Your task to perform on an android device: Open Reddit.com Image 0: 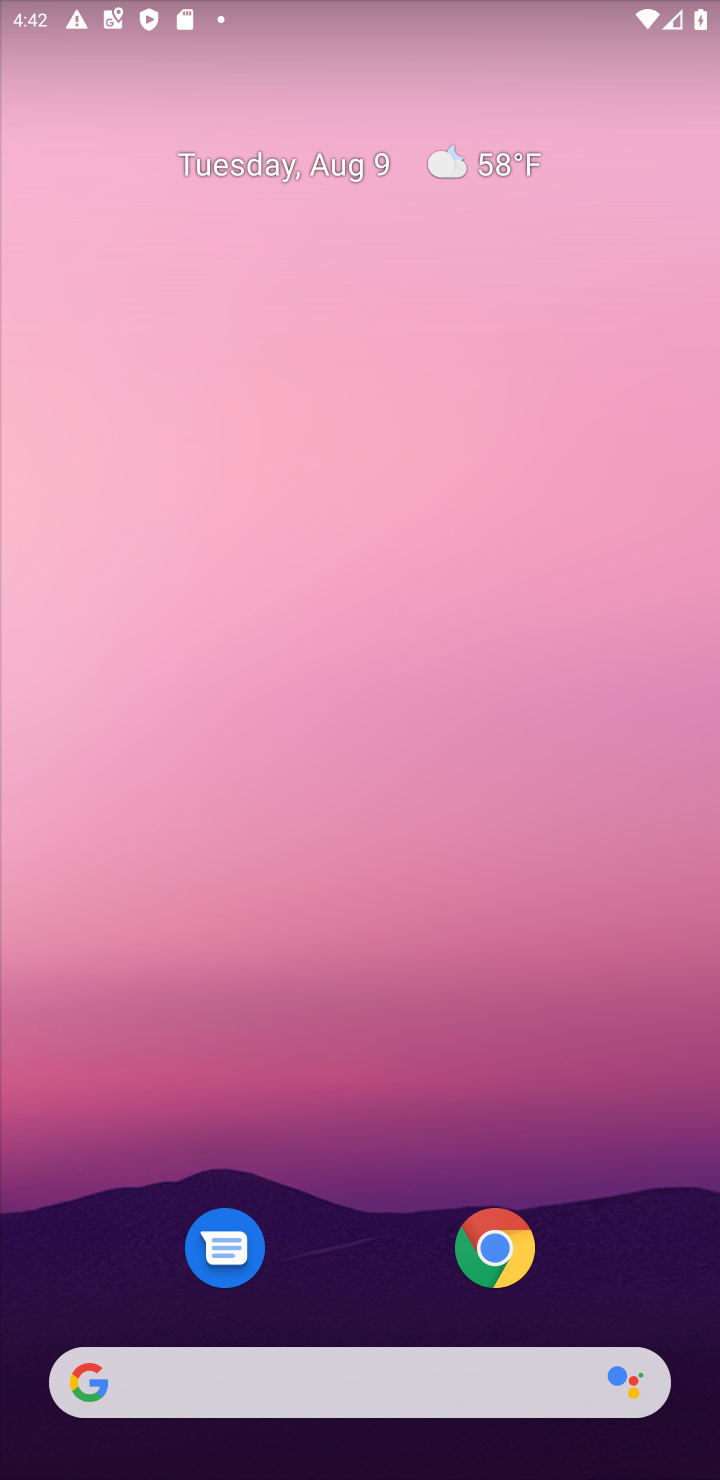
Step 0: drag from (368, 693) to (406, 14)
Your task to perform on an android device: Open Reddit.com Image 1: 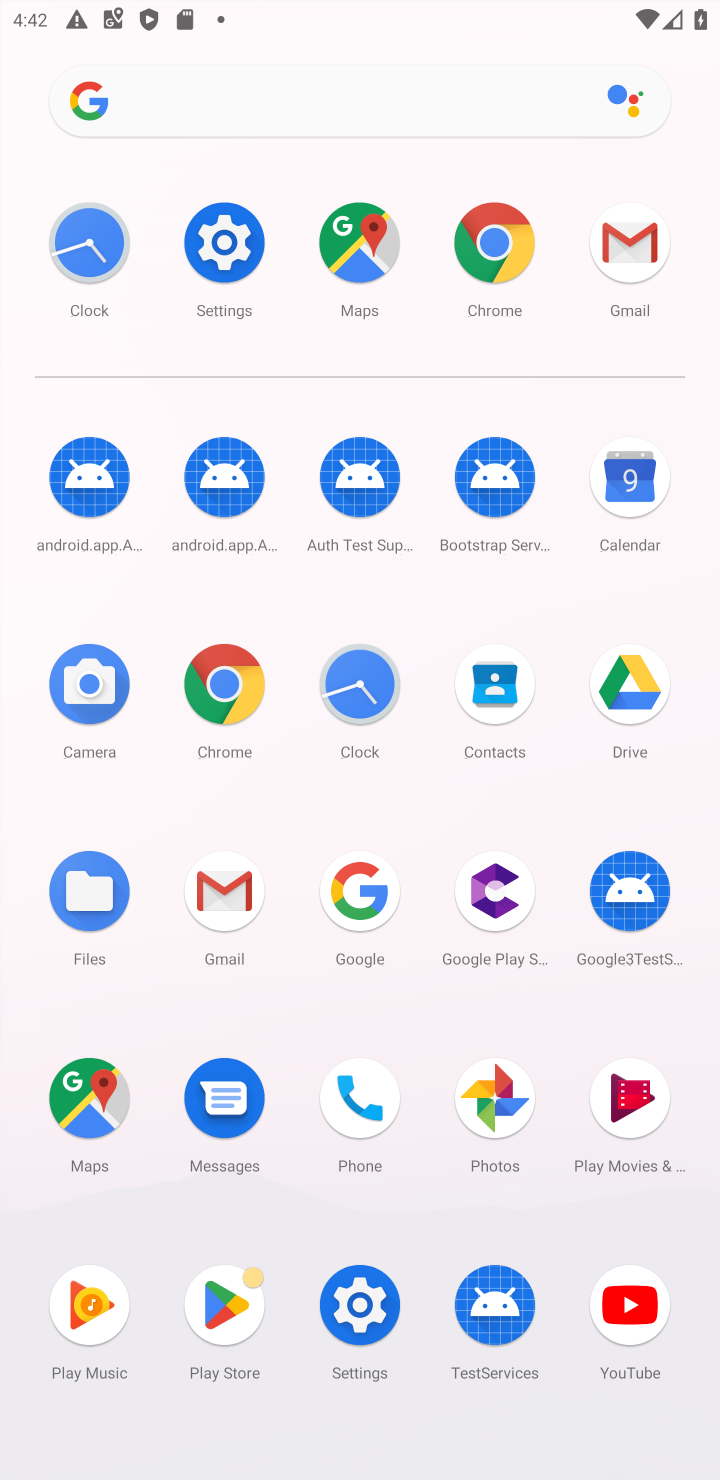
Step 1: click (221, 683)
Your task to perform on an android device: Open Reddit.com Image 2: 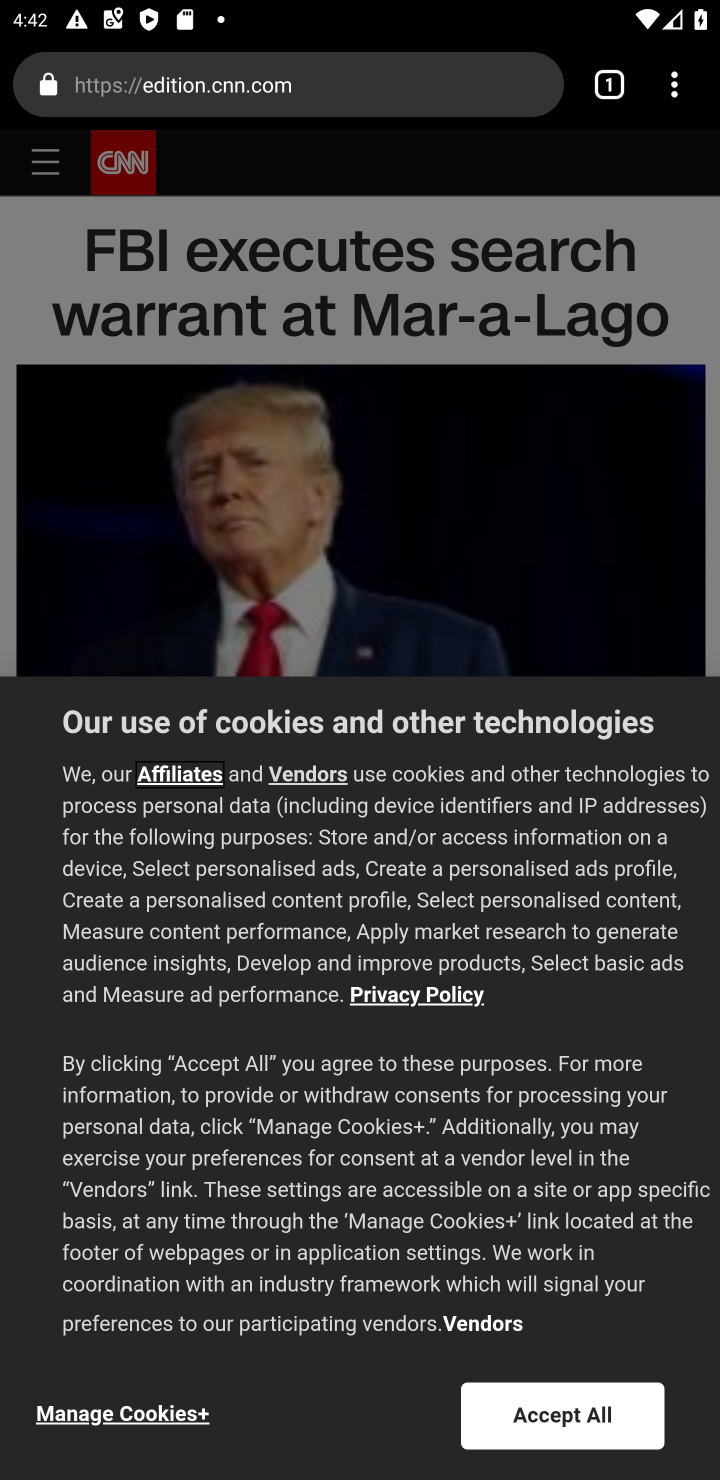
Step 2: click (222, 76)
Your task to perform on an android device: Open Reddit.com Image 3: 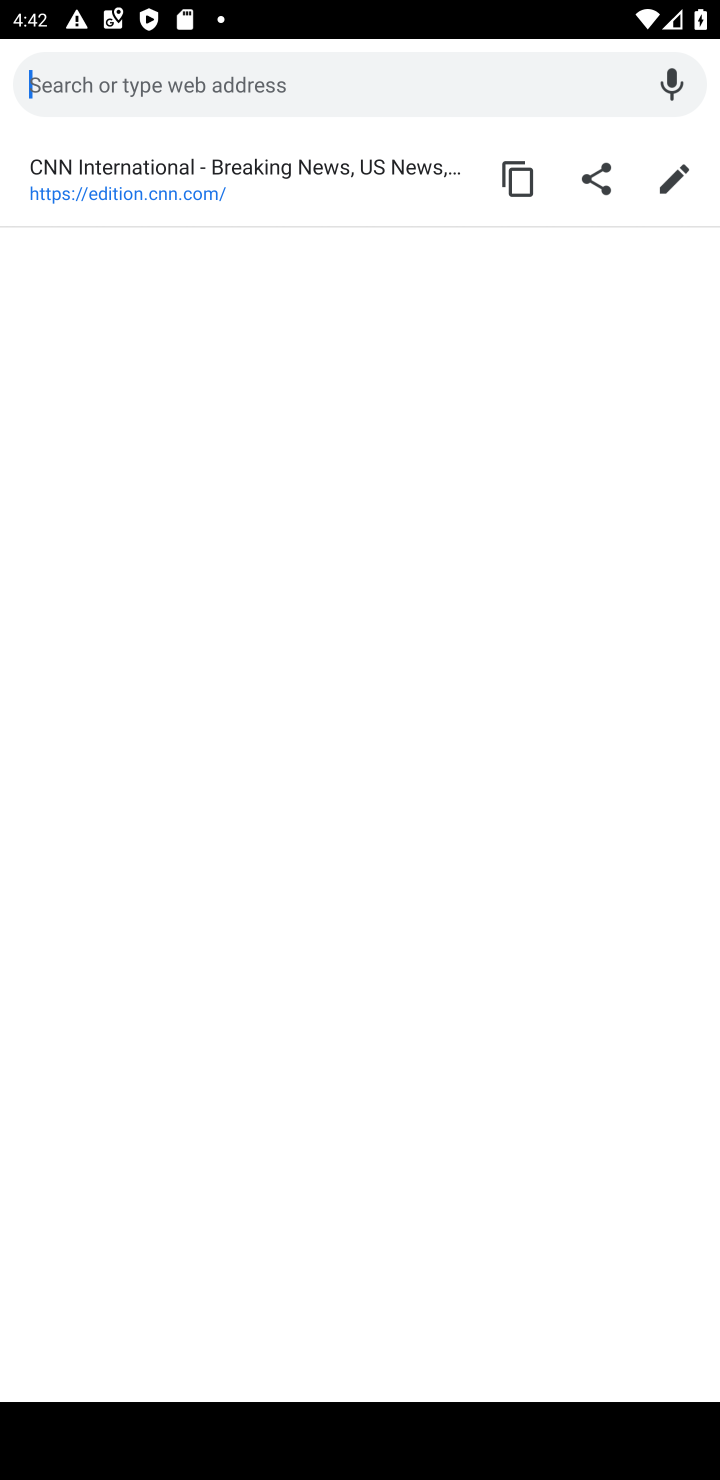
Step 3: type "reddit.com"
Your task to perform on an android device: Open Reddit.com Image 4: 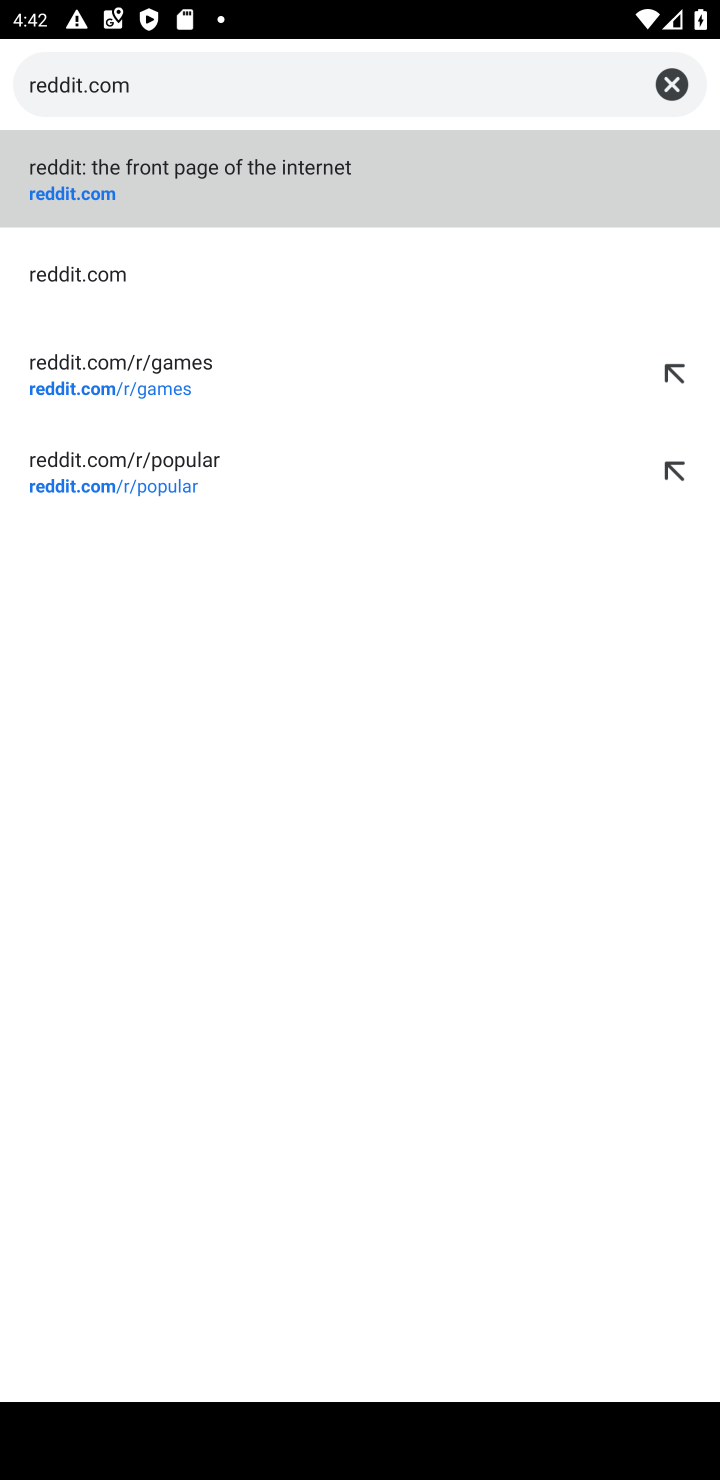
Step 4: click (98, 177)
Your task to perform on an android device: Open Reddit.com Image 5: 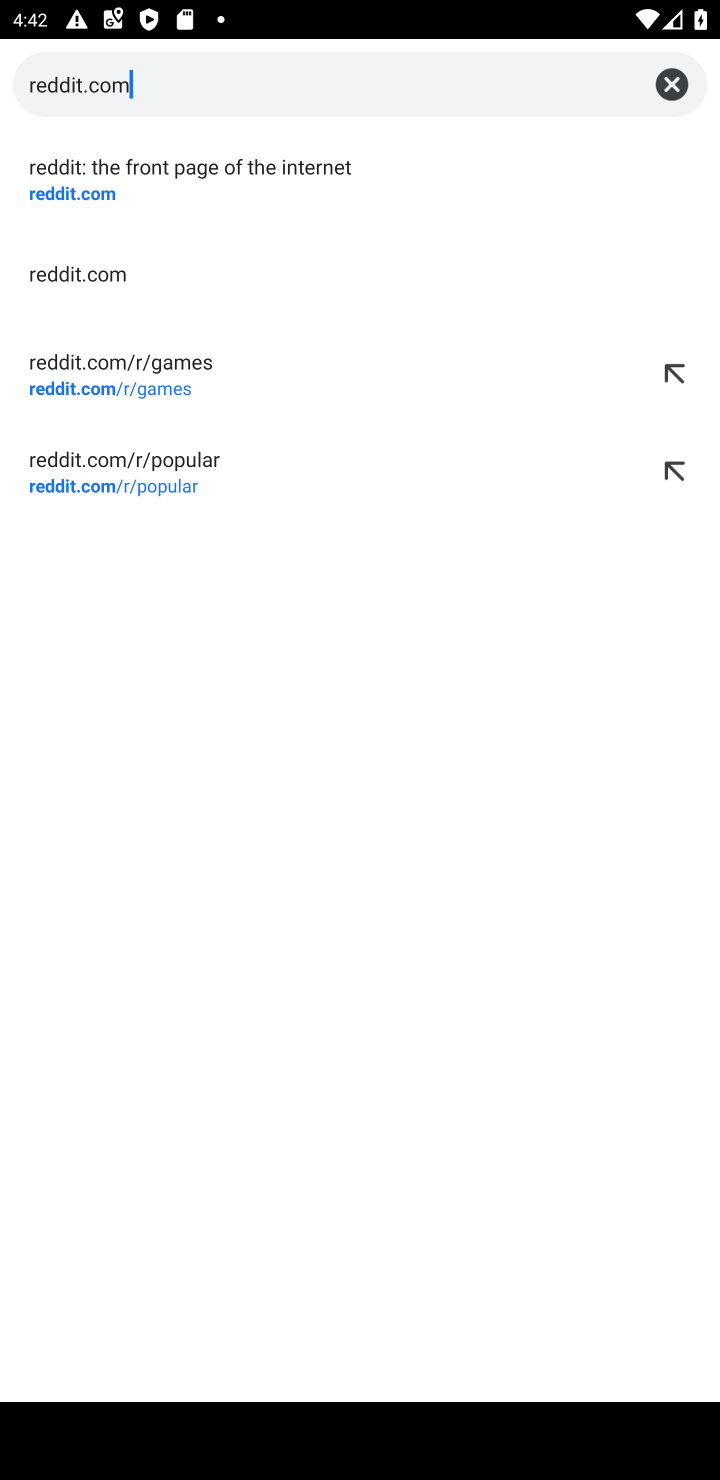
Step 5: click (93, 181)
Your task to perform on an android device: Open Reddit.com Image 6: 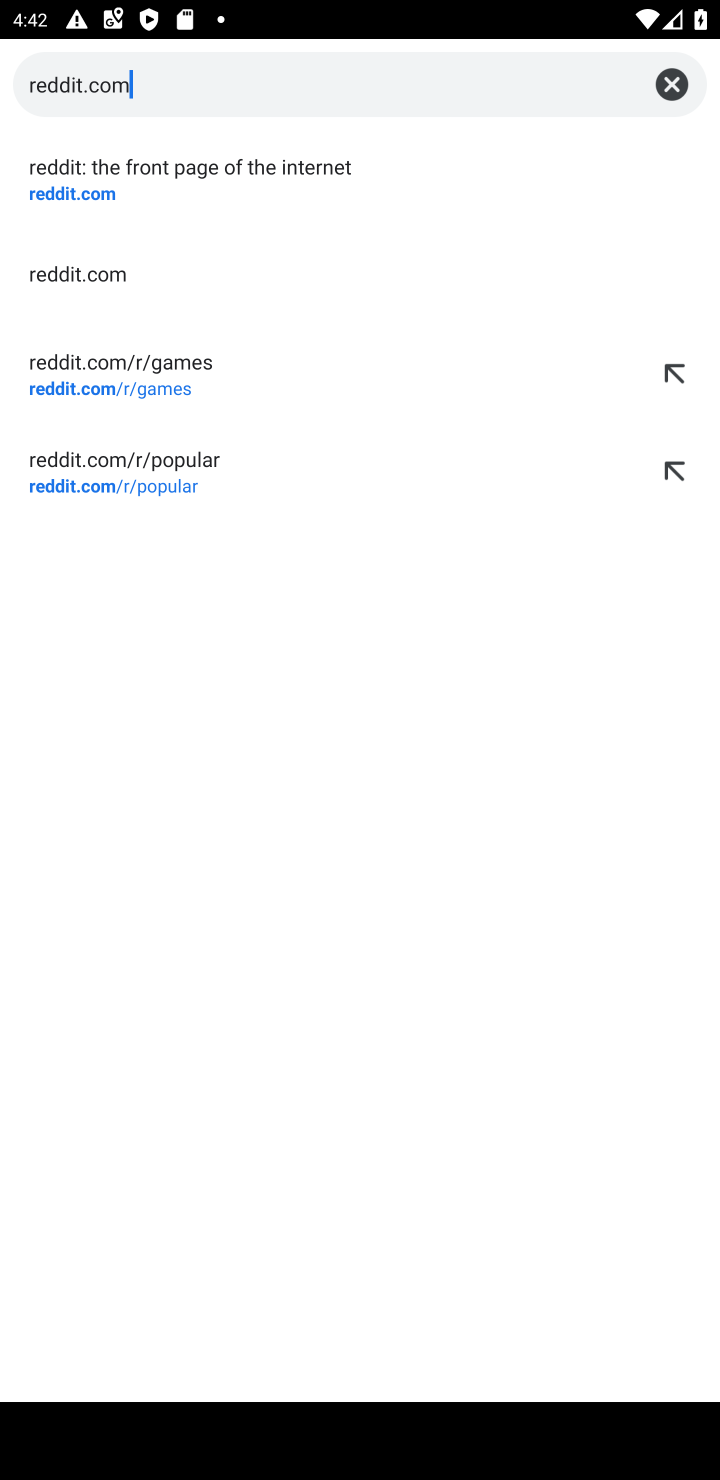
Step 6: click (86, 198)
Your task to perform on an android device: Open Reddit.com Image 7: 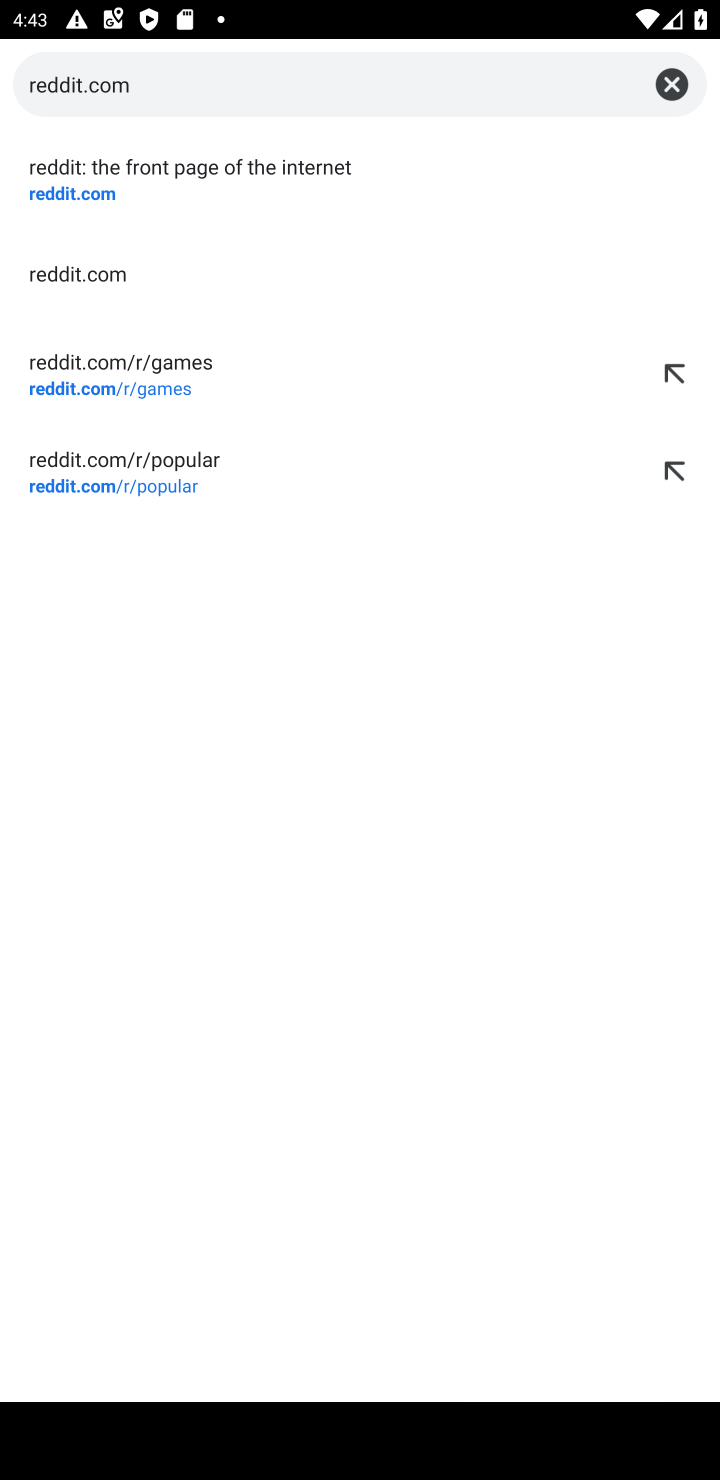
Step 7: click (80, 267)
Your task to perform on an android device: Open Reddit.com Image 8: 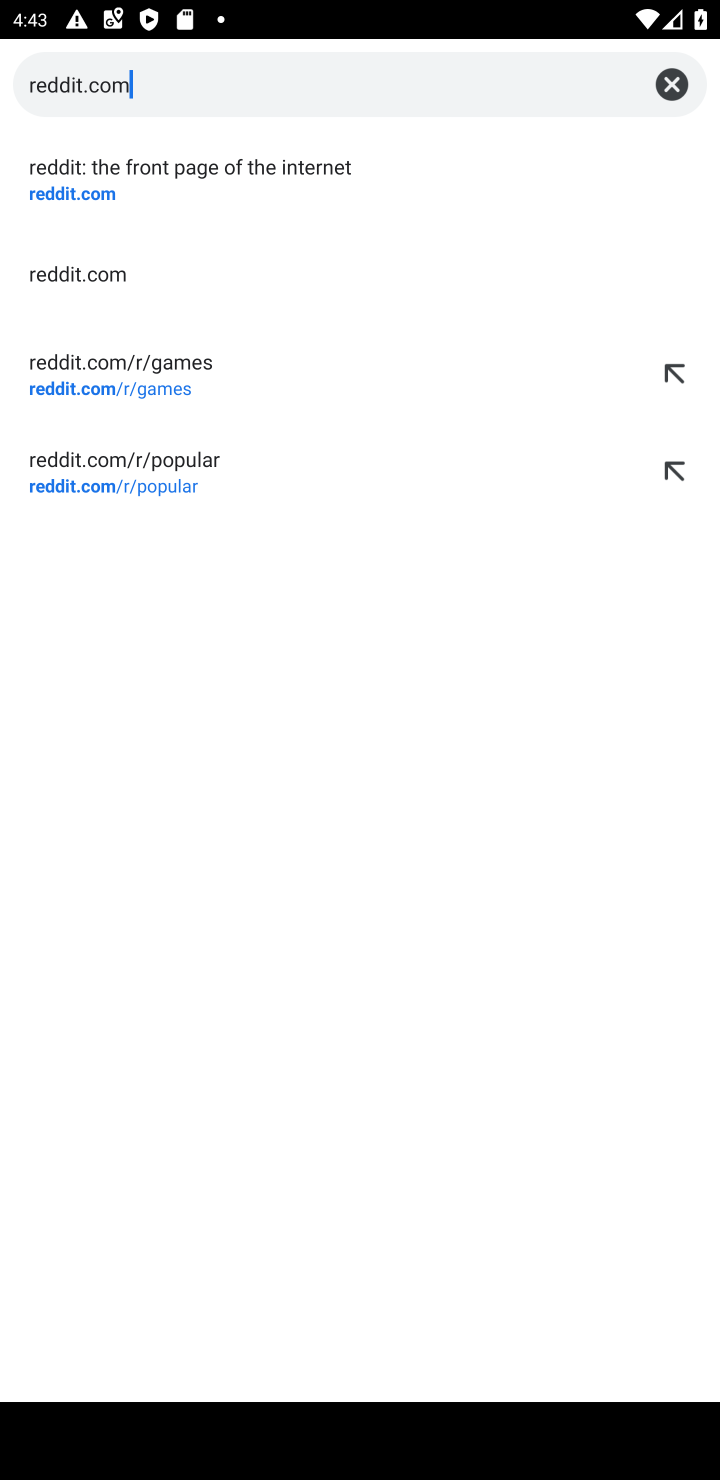
Step 8: click (80, 267)
Your task to perform on an android device: Open Reddit.com Image 9: 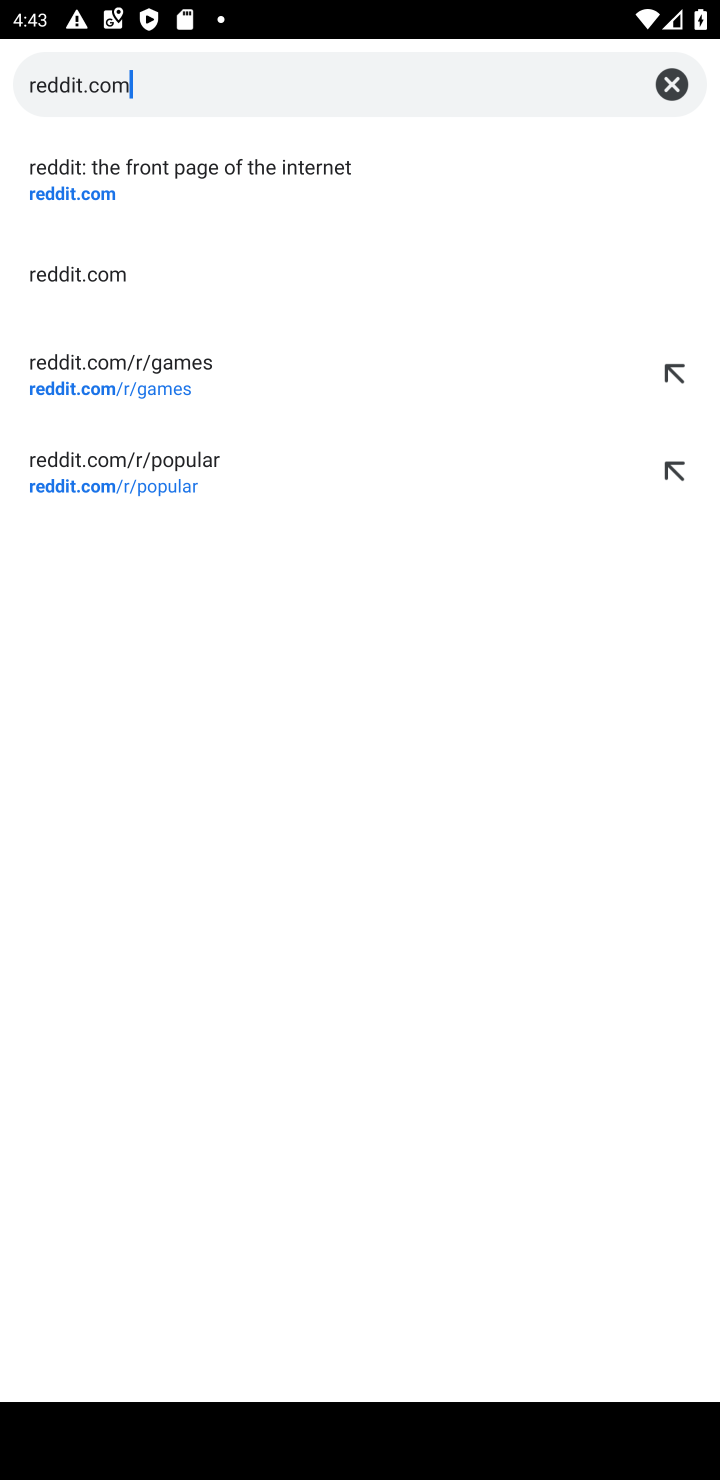
Step 9: click (109, 183)
Your task to perform on an android device: Open Reddit.com Image 10: 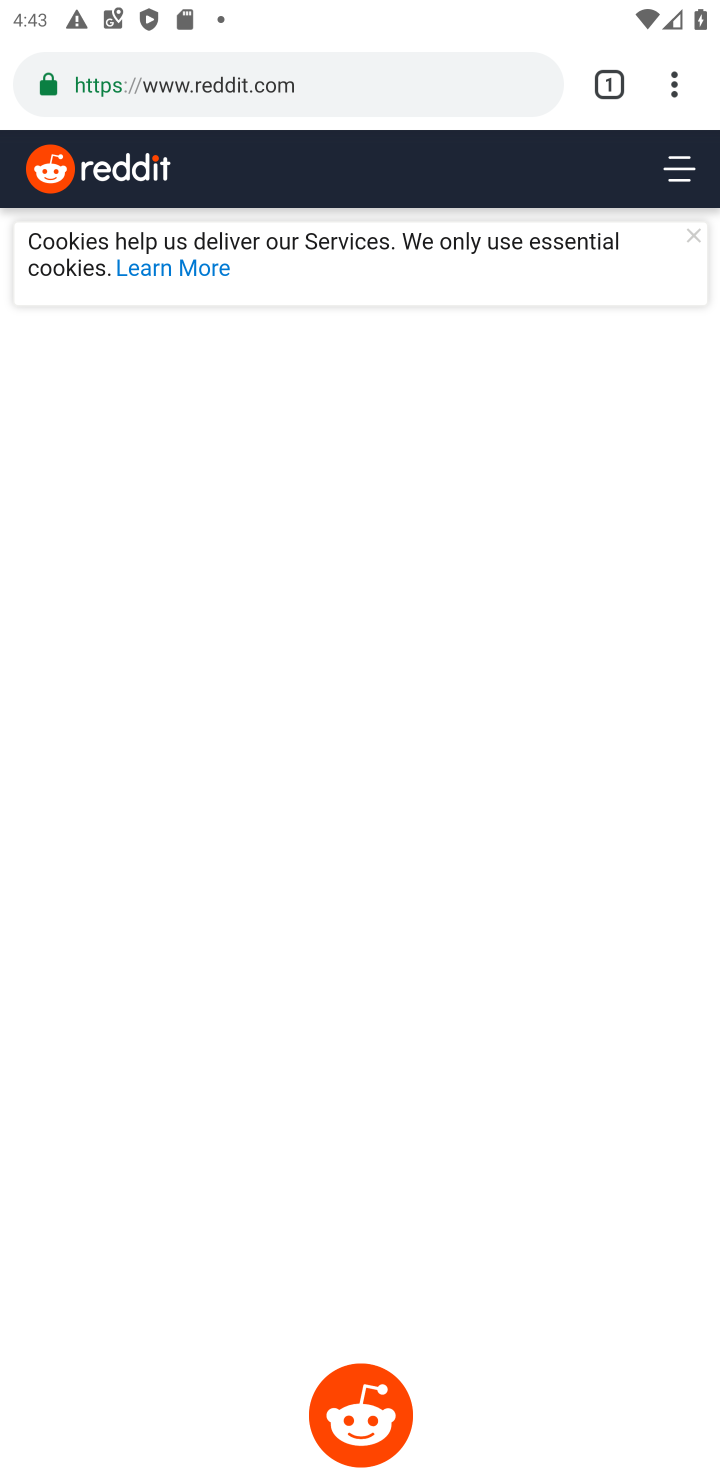
Step 10: task complete